Your task to perform on an android device: Open internet settings Image 0: 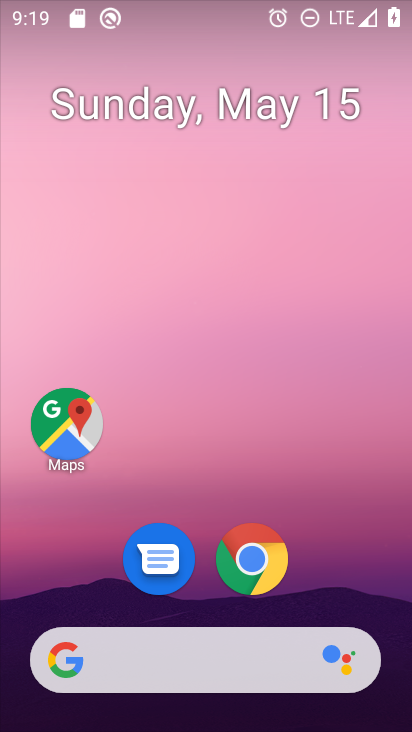
Step 0: drag from (355, 574) to (298, 98)
Your task to perform on an android device: Open internet settings Image 1: 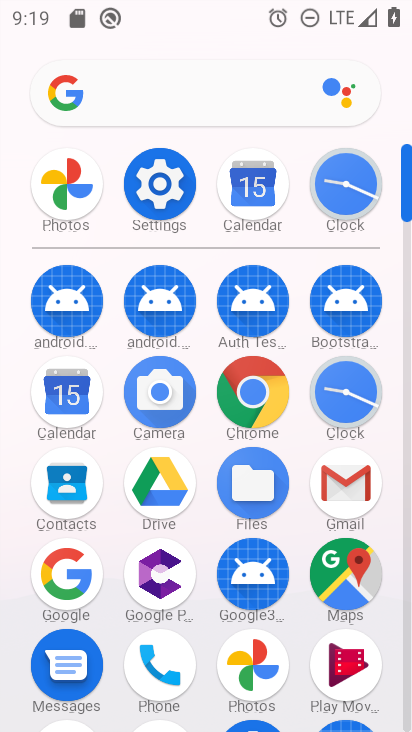
Step 1: click (150, 198)
Your task to perform on an android device: Open internet settings Image 2: 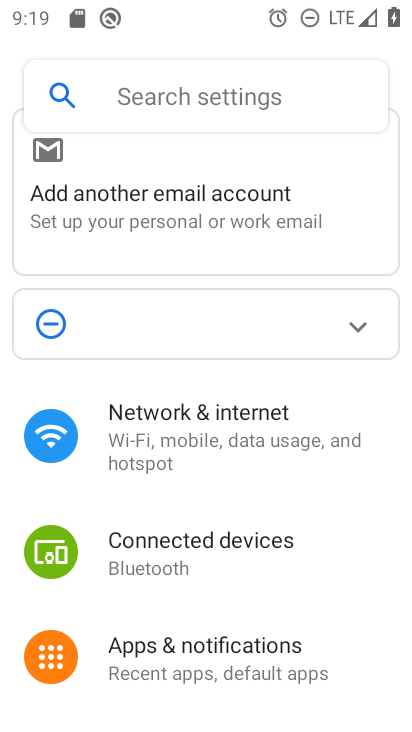
Step 2: click (194, 378)
Your task to perform on an android device: Open internet settings Image 3: 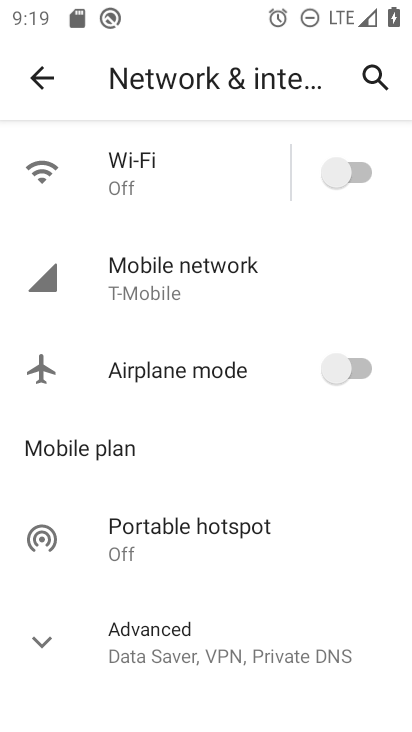
Step 3: task complete